Your task to perform on an android device: toggle javascript in the chrome app Image 0: 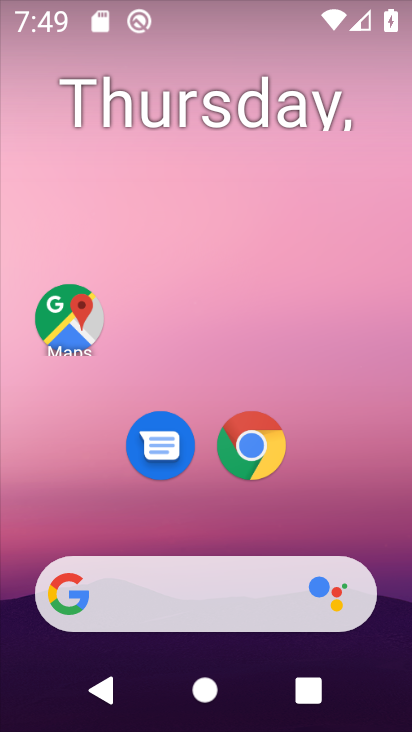
Step 0: click (251, 439)
Your task to perform on an android device: toggle javascript in the chrome app Image 1: 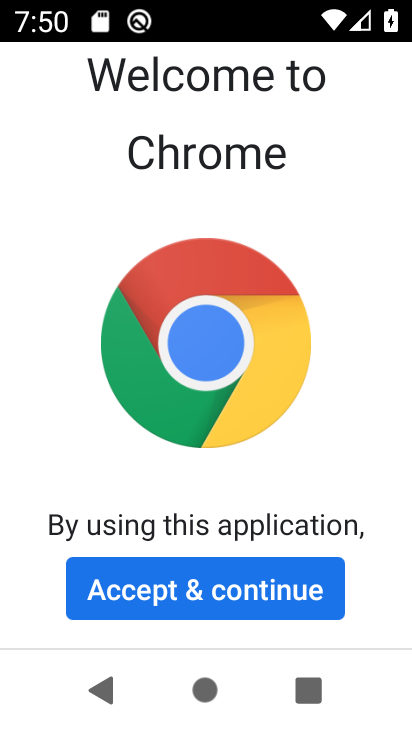
Step 1: click (124, 589)
Your task to perform on an android device: toggle javascript in the chrome app Image 2: 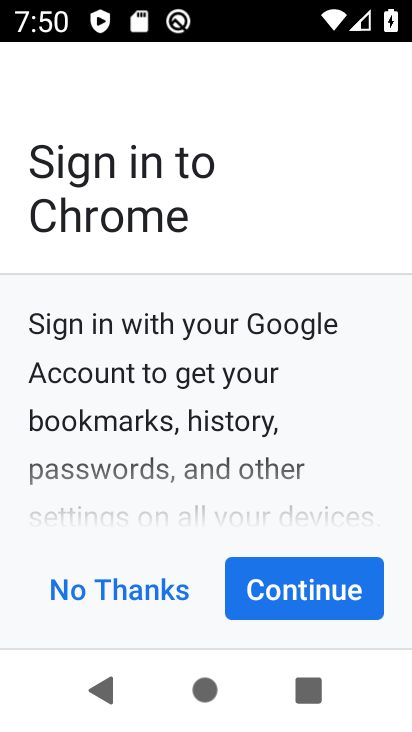
Step 2: click (126, 580)
Your task to perform on an android device: toggle javascript in the chrome app Image 3: 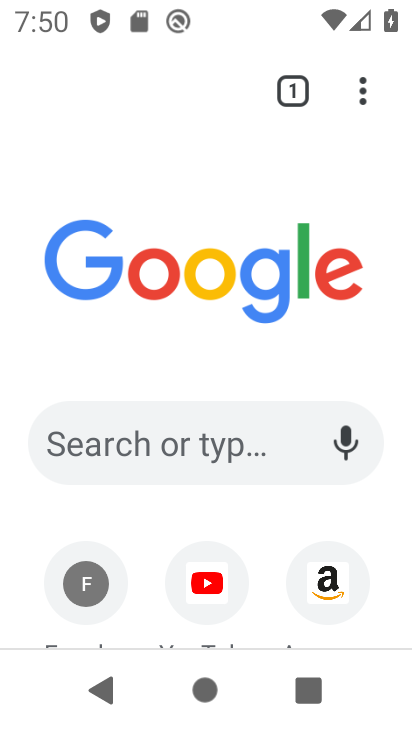
Step 3: click (354, 84)
Your task to perform on an android device: toggle javascript in the chrome app Image 4: 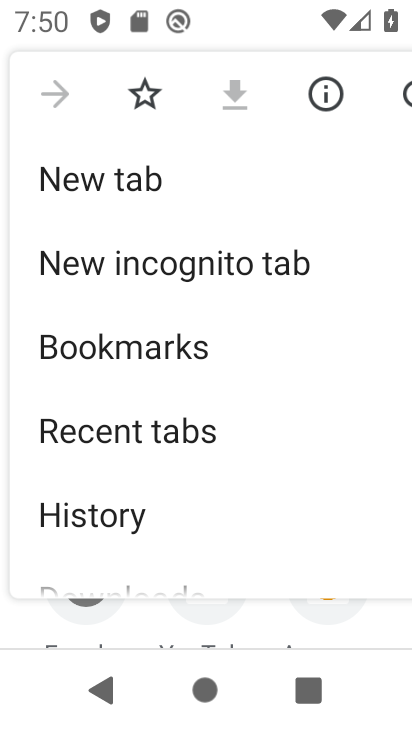
Step 4: drag from (216, 513) to (320, 259)
Your task to perform on an android device: toggle javascript in the chrome app Image 5: 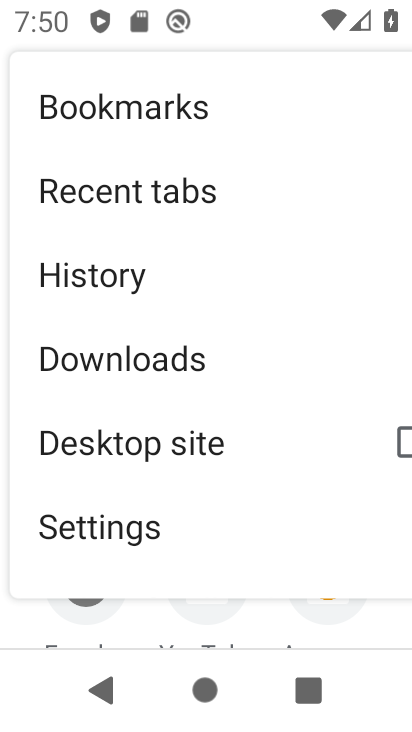
Step 5: click (143, 528)
Your task to perform on an android device: toggle javascript in the chrome app Image 6: 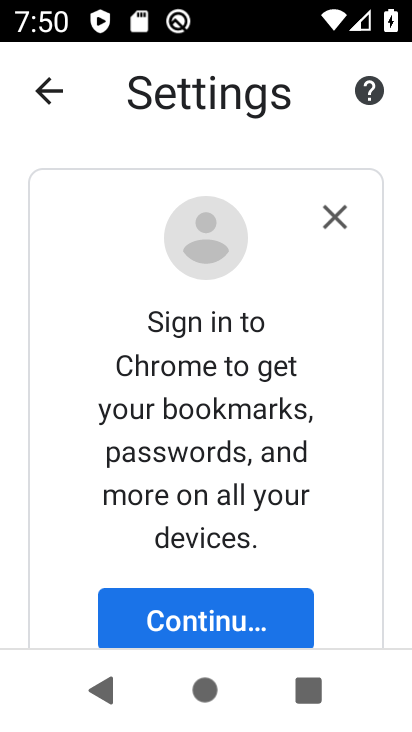
Step 6: click (331, 206)
Your task to perform on an android device: toggle javascript in the chrome app Image 7: 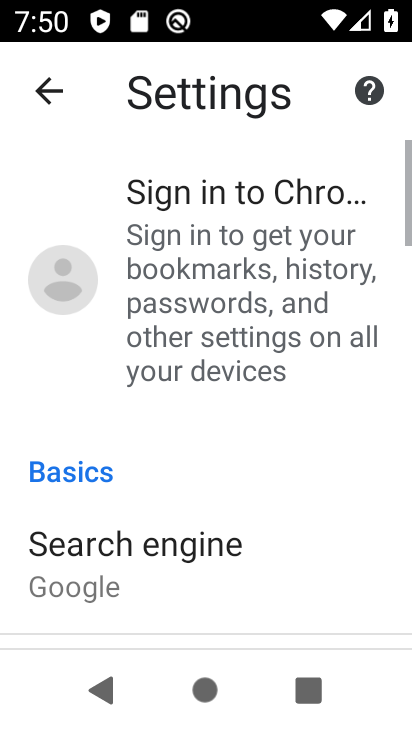
Step 7: drag from (197, 558) to (347, 263)
Your task to perform on an android device: toggle javascript in the chrome app Image 8: 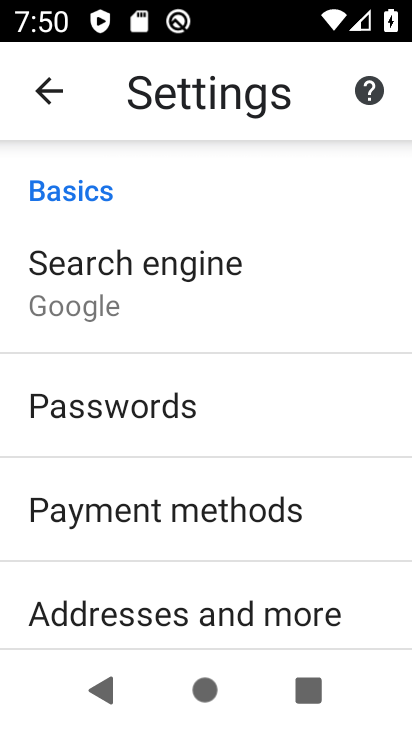
Step 8: drag from (128, 647) to (266, 313)
Your task to perform on an android device: toggle javascript in the chrome app Image 9: 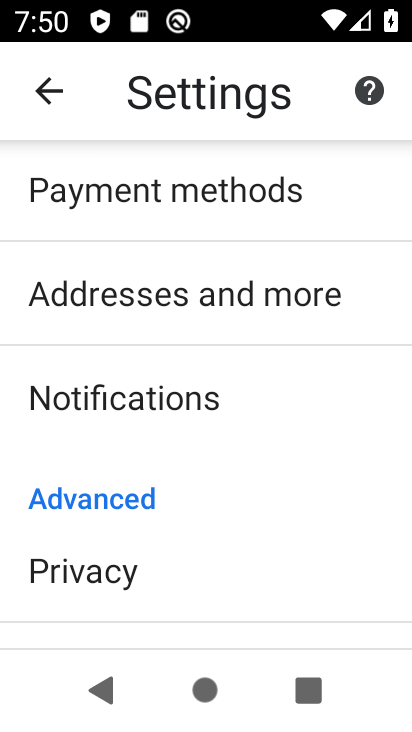
Step 9: drag from (155, 546) to (280, 257)
Your task to perform on an android device: toggle javascript in the chrome app Image 10: 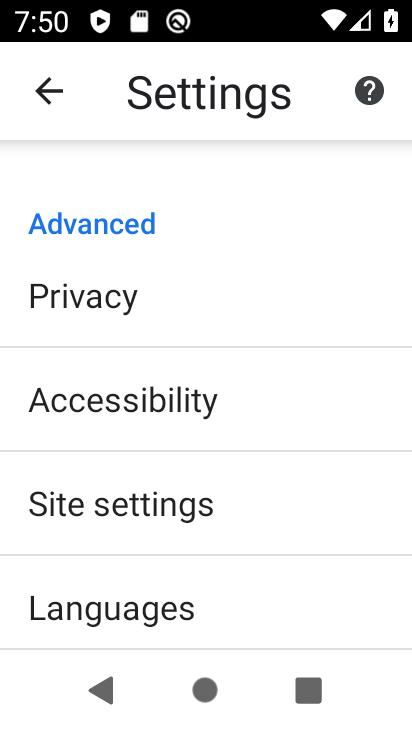
Step 10: click (145, 489)
Your task to perform on an android device: toggle javascript in the chrome app Image 11: 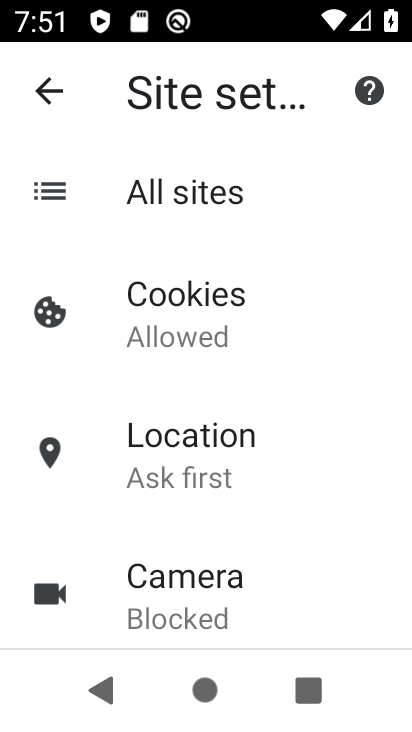
Step 11: drag from (130, 594) to (300, 278)
Your task to perform on an android device: toggle javascript in the chrome app Image 12: 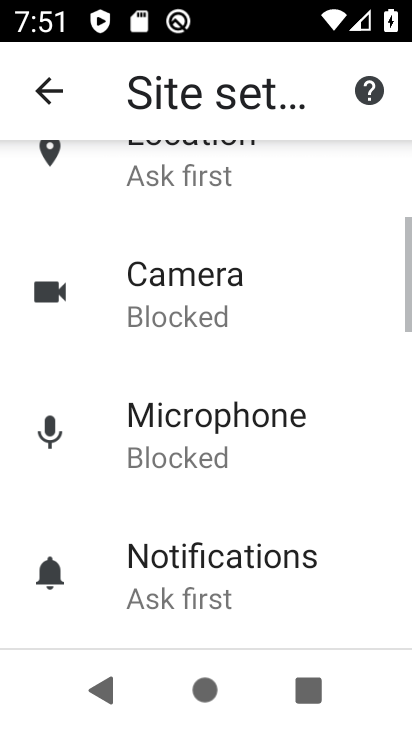
Step 12: drag from (136, 568) to (262, 297)
Your task to perform on an android device: toggle javascript in the chrome app Image 13: 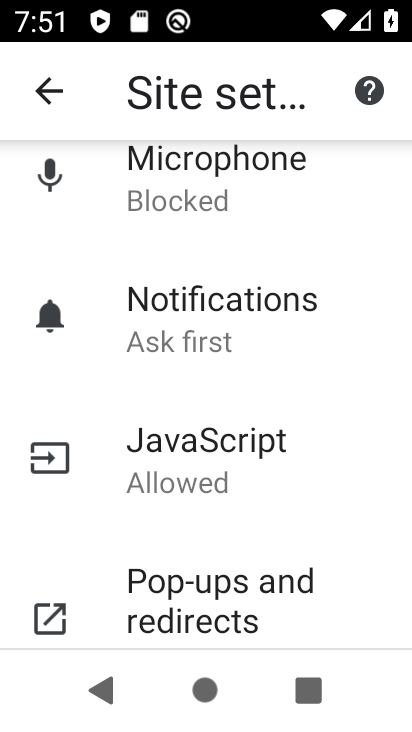
Step 13: click (208, 435)
Your task to perform on an android device: toggle javascript in the chrome app Image 14: 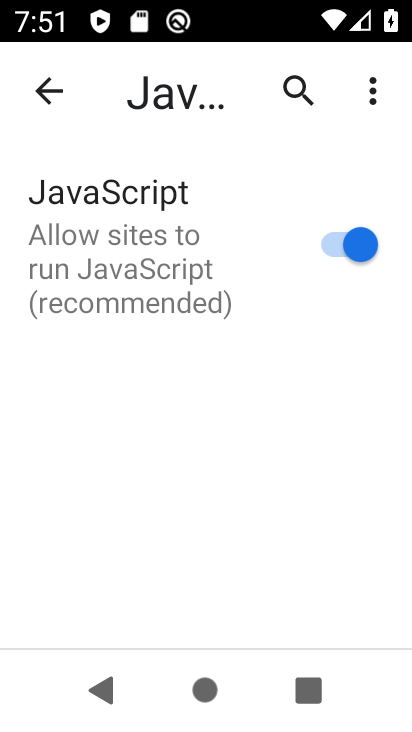
Step 14: click (377, 241)
Your task to perform on an android device: toggle javascript in the chrome app Image 15: 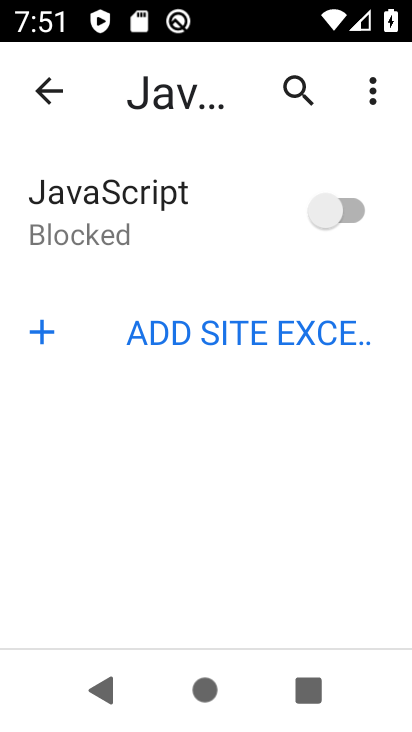
Step 15: task complete